Your task to perform on an android device: Open Google Maps and go to "Timeline" Image 0: 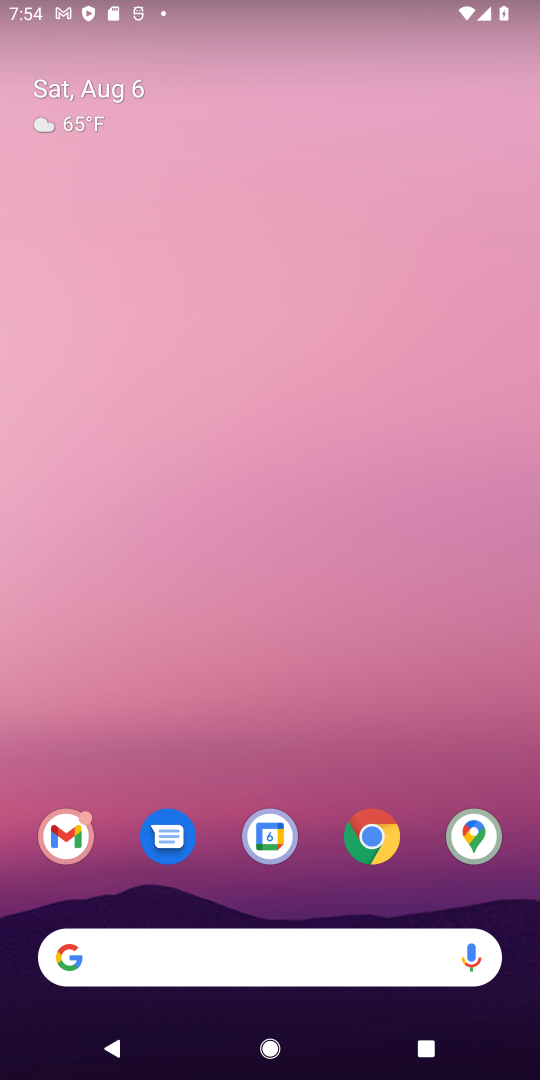
Step 0: drag from (515, 897) to (340, 49)
Your task to perform on an android device: Open Google Maps and go to "Timeline" Image 1: 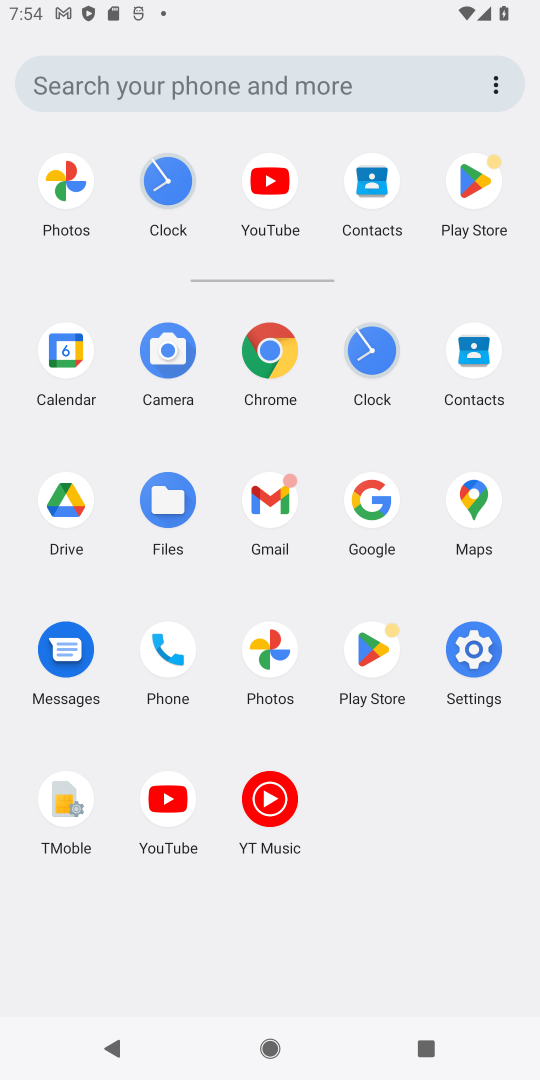
Step 1: click (465, 498)
Your task to perform on an android device: Open Google Maps and go to "Timeline" Image 2: 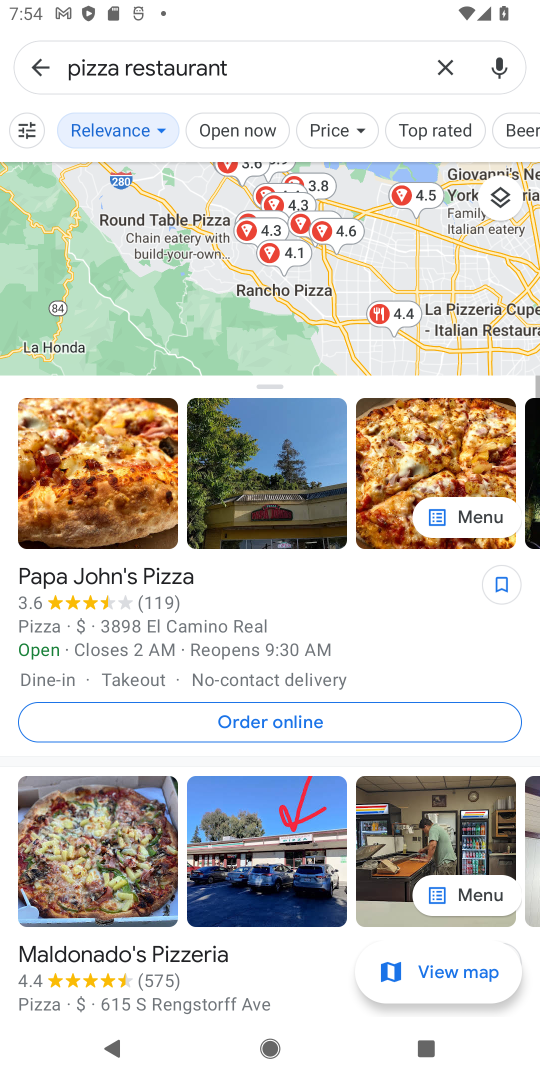
Step 2: click (456, 71)
Your task to perform on an android device: Open Google Maps and go to "Timeline" Image 3: 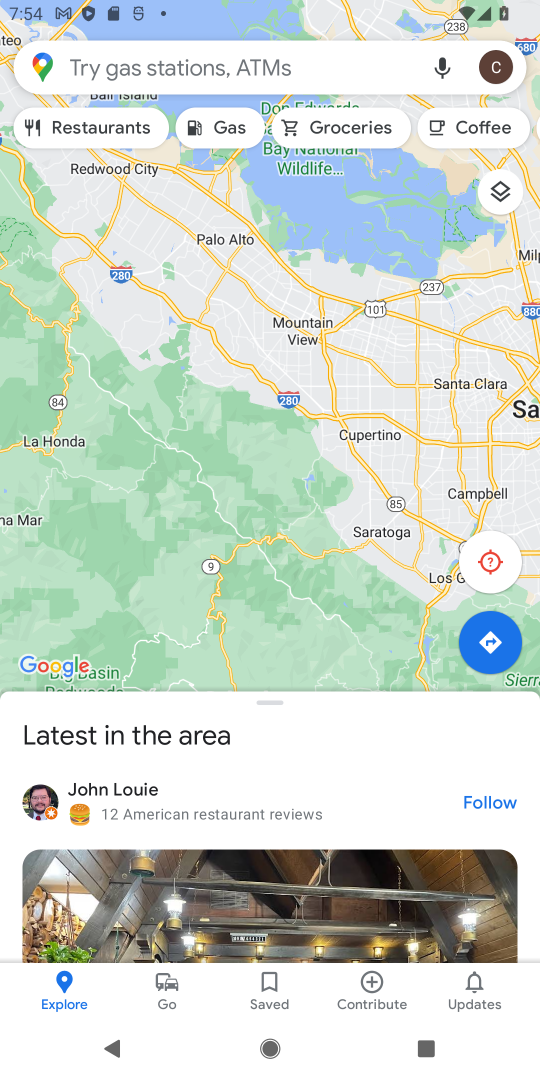
Step 3: click (494, 73)
Your task to perform on an android device: Open Google Maps and go to "Timeline" Image 4: 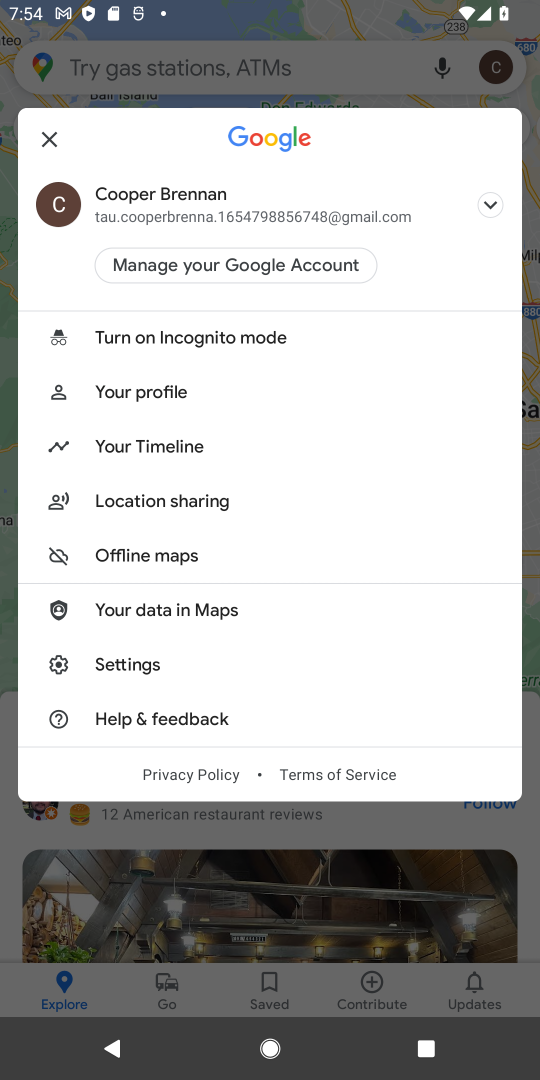
Step 4: click (134, 443)
Your task to perform on an android device: Open Google Maps and go to "Timeline" Image 5: 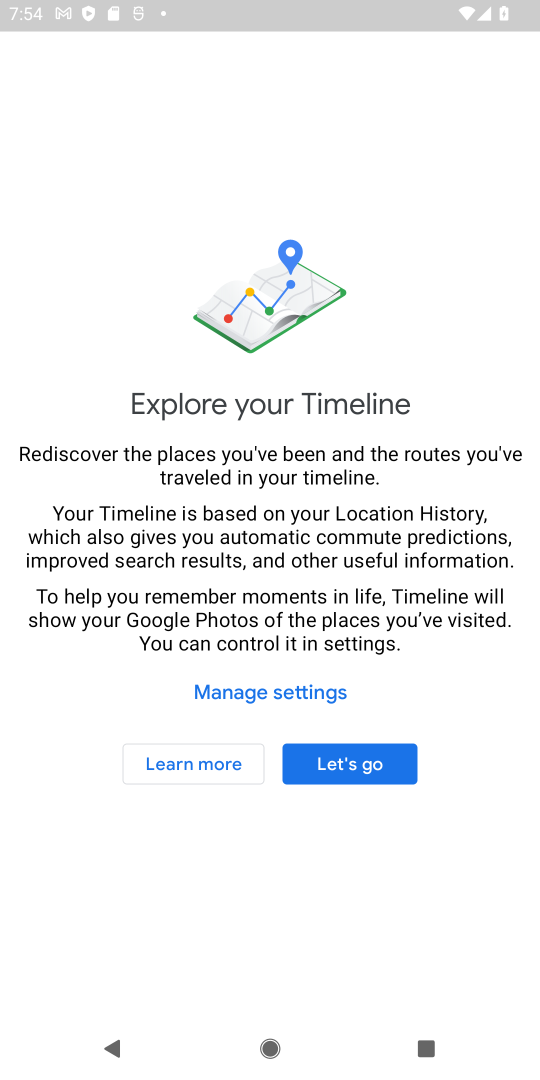
Step 5: task complete